Your task to perform on an android device: make emails show in primary in the gmail app Image 0: 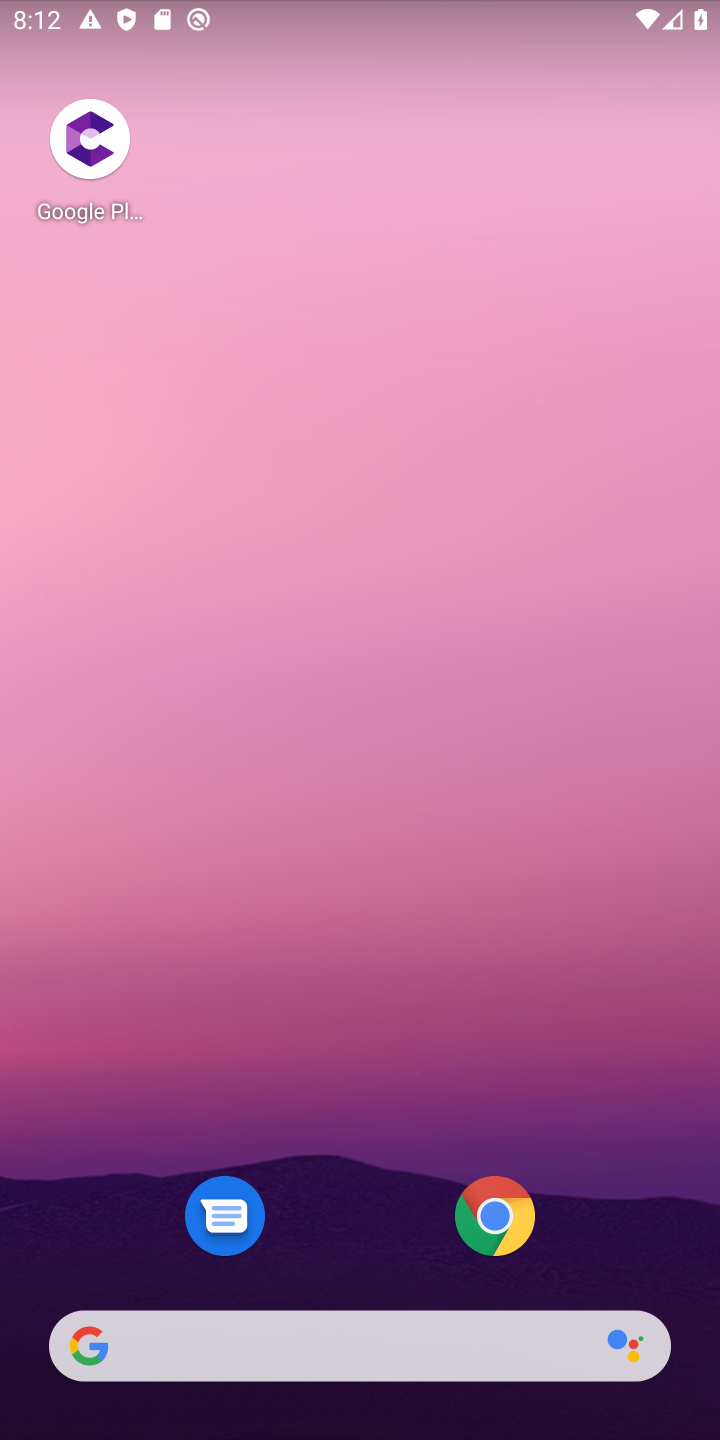
Step 0: drag from (351, 1112) to (693, 1)
Your task to perform on an android device: make emails show in primary in the gmail app Image 1: 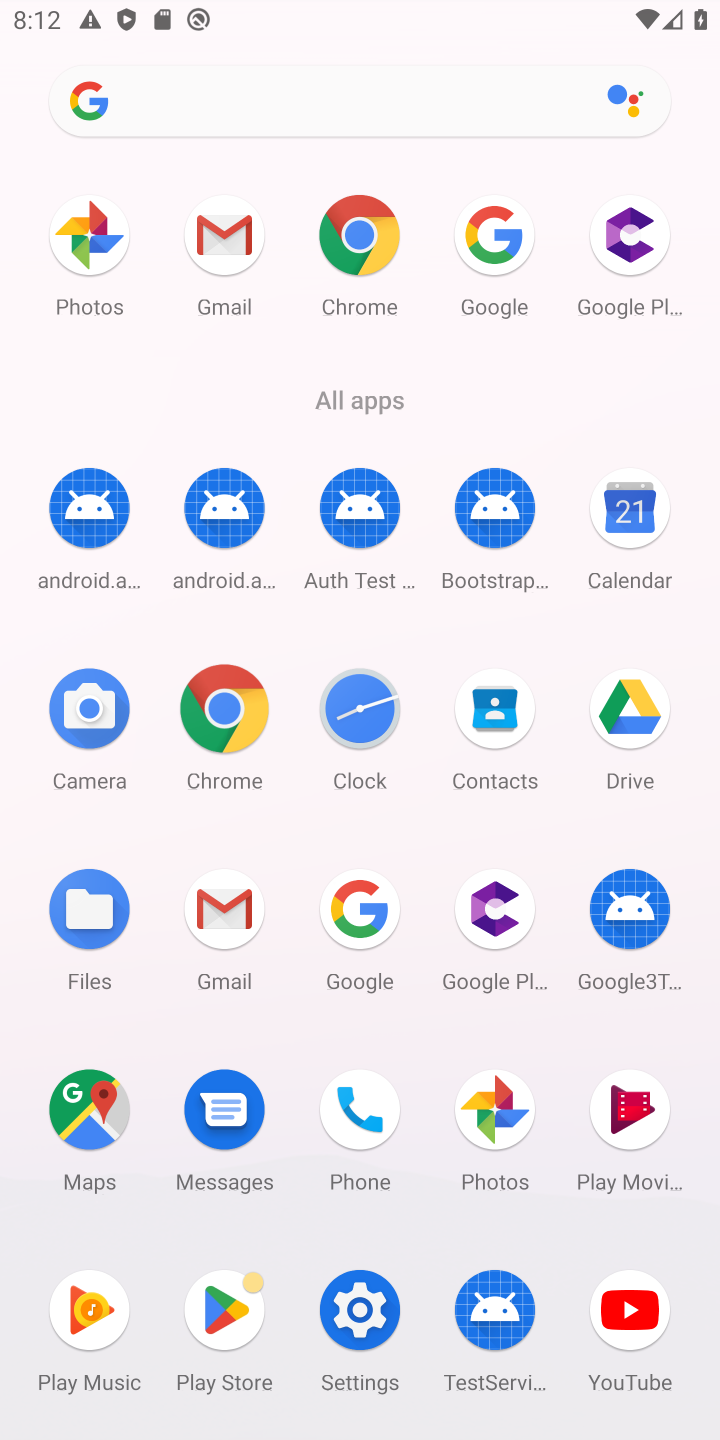
Step 1: click (224, 909)
Your task to perform on an android device: make emails show in primary in the gmail app Image 2: 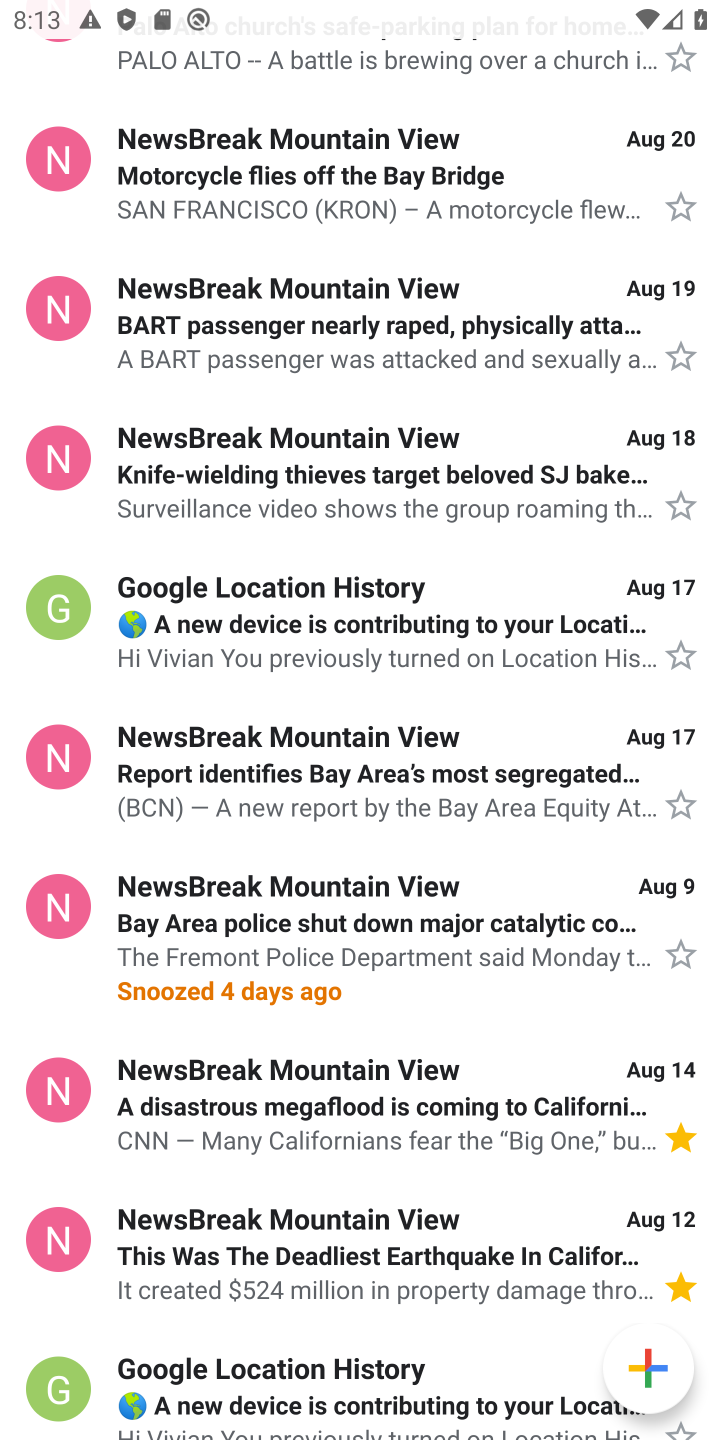
Step 2: task complete